Your task to perform on an android device: turn on priority inbox in the gmail app Image 0: 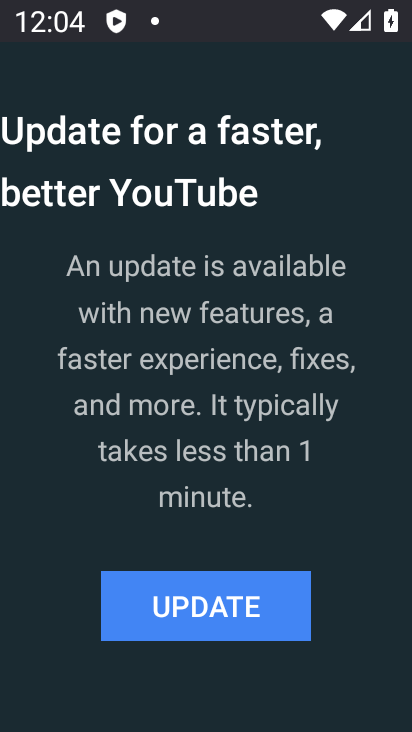
Step 0: press back button
Your task to perform on an android device: turn on priority inbox in the gmail app Image 1: 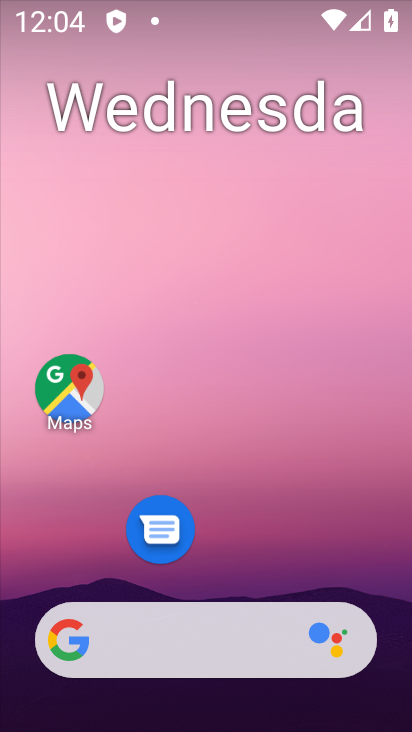
Step 1: drag from (220, 570) to (209, 89)
Your task to perform on an android device: turn on priority inbox in the gmail app Image 2: 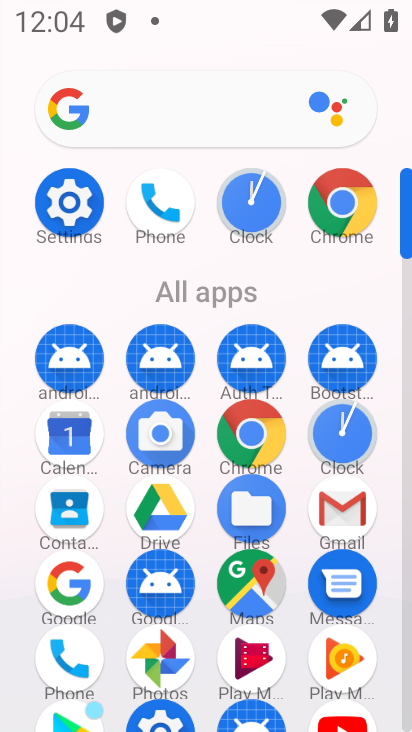
Step 2: click (338, 501)
Your task to perform on an android device: turn on priority inbox in the gmail app Image 3: 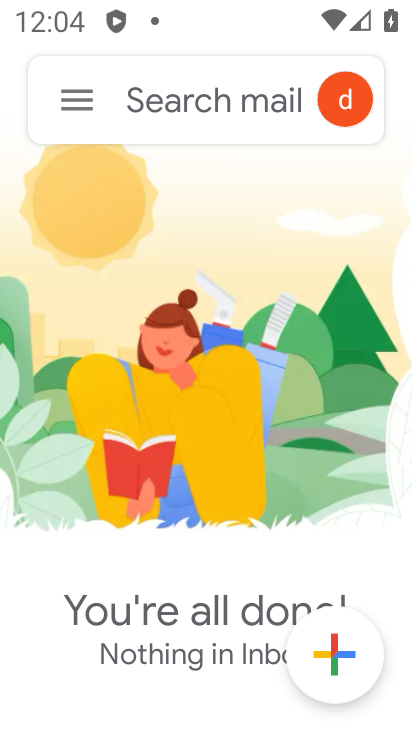
Step 3: press home button
Your task to perform on an android device: turn on priority inbox in the gmail app Image 4: 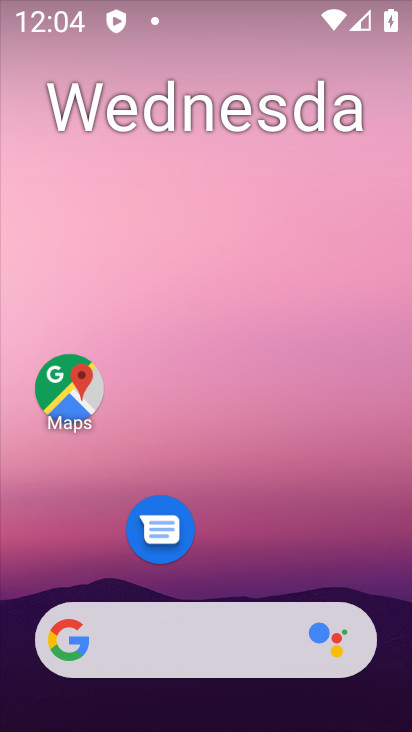
Step 4: drag from (234, 597) to (165, 0)
Your task to perform on an android device: turn on priority inbox in the gmail app Image 5: 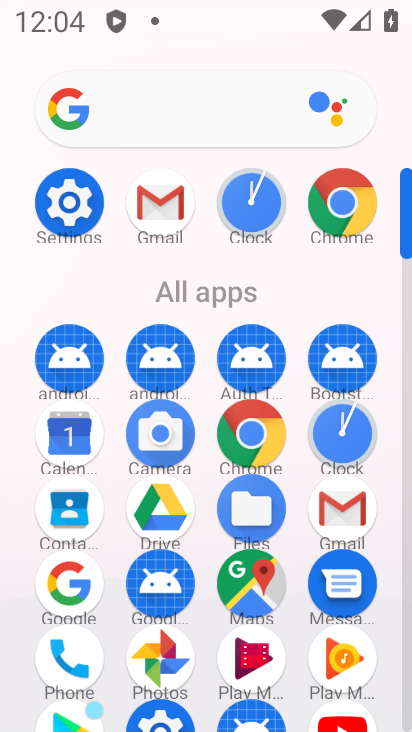
Step 5: click (359, 515)
Your task to perform on an android device: turn on priority inbox in the gmail app Image 6: 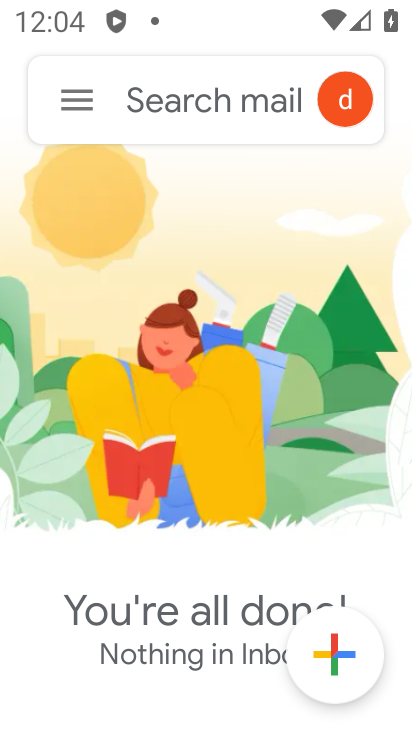
Step 6: click (85, 102)
Your task to perform on an android device: turn on priority inbox in the gmail app Image 7: 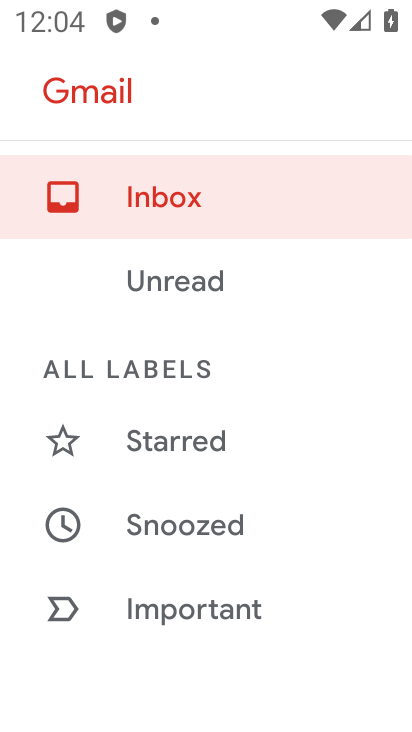
Step 7: drag from (129, 558) to (56, 117)
Your task to perform on an android device: turn on priority inbox in the gmail app Image 8: 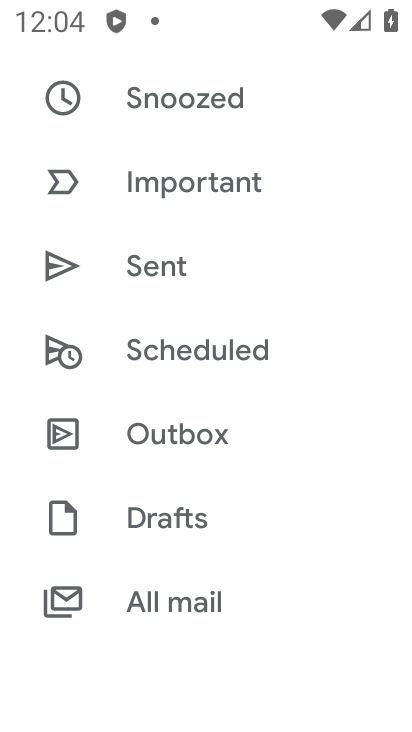
Step 8: drag from (191, 542) to (224, 94)
Your task to perform on an android device: turn on priority inbox in the gmail app Image 9: 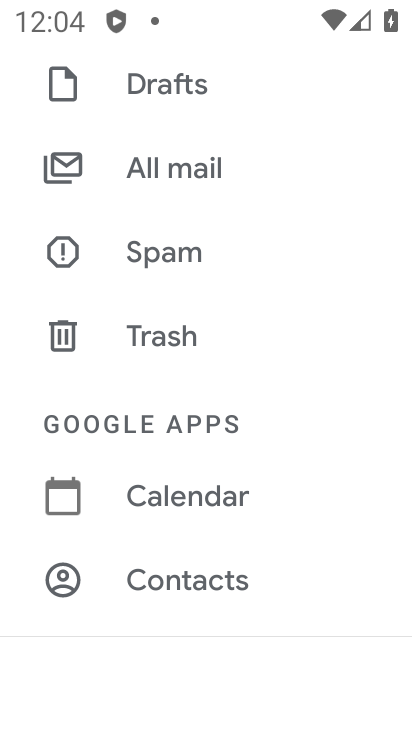
Step 9: drag from (183, 520) to (185, 263)
Your task to perform on an android device: turn on priority inbox in the gmail app Image 10: 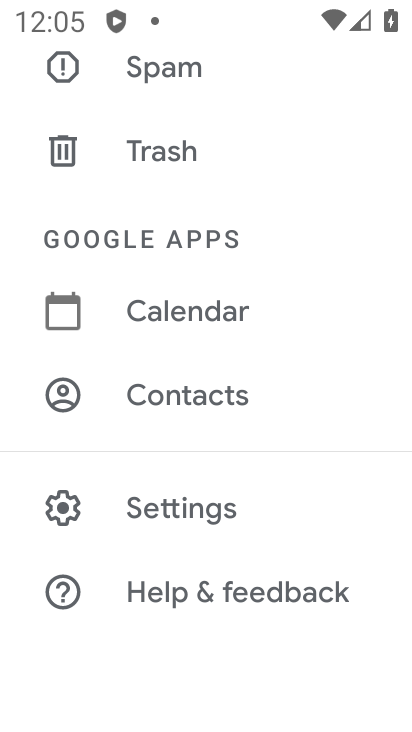
Step 10: click (209, 499)
Your task to perform on an android device: turn on priority inbox in the gmail app Image 11: 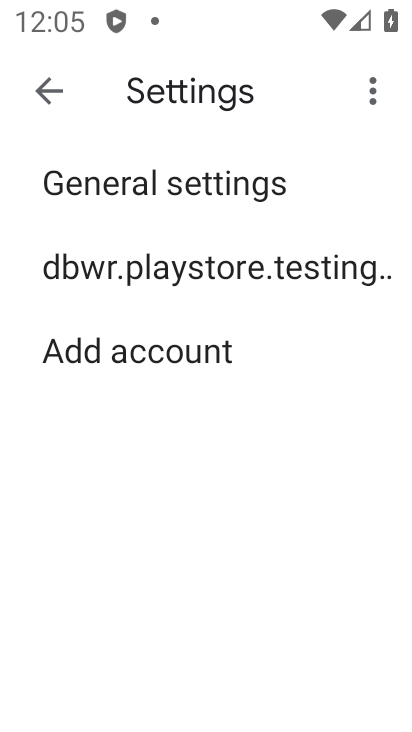
Step 11: click (149, 263)
Your task to perform on an android device: turn on priority inbox in the gmail app Image 12: 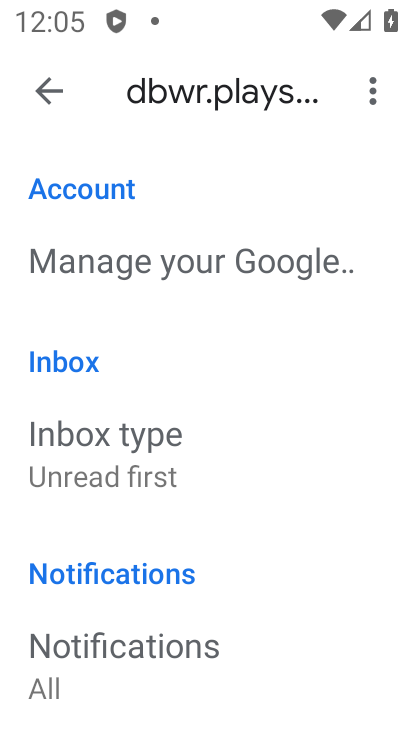
Step 12: click (111, 471)
Your task to perform on an android device: turn on priority inbox in the gmail app Image 13: 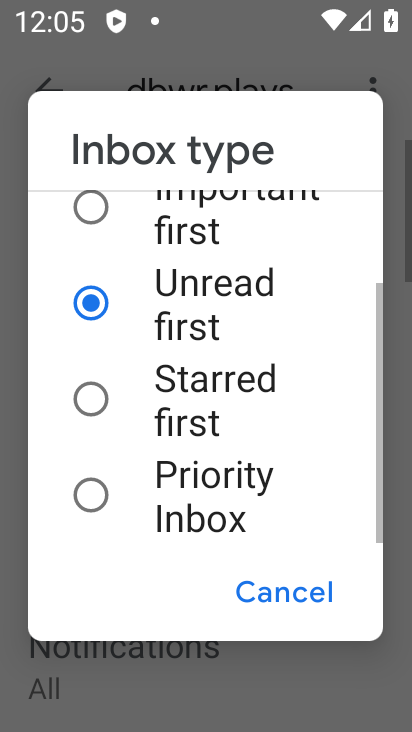
Step 13: click (162, 515)
Your task to perform on an android device: turn on priority inbox in the gmail app Image 14: 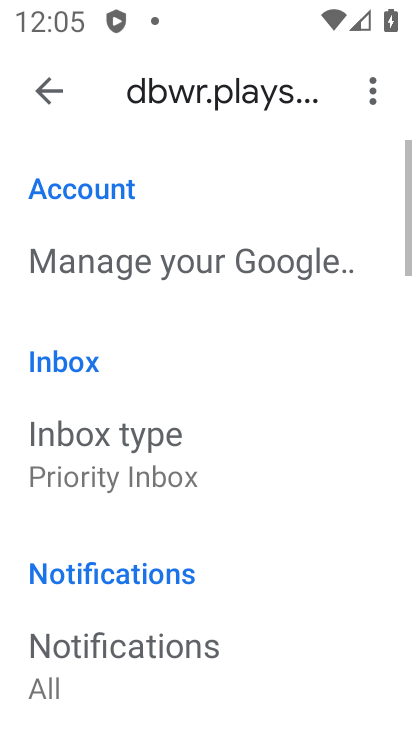
Step 14: task complete